Your task to perform on an android device: allow notifications from all sites in the chrome app Image 0: 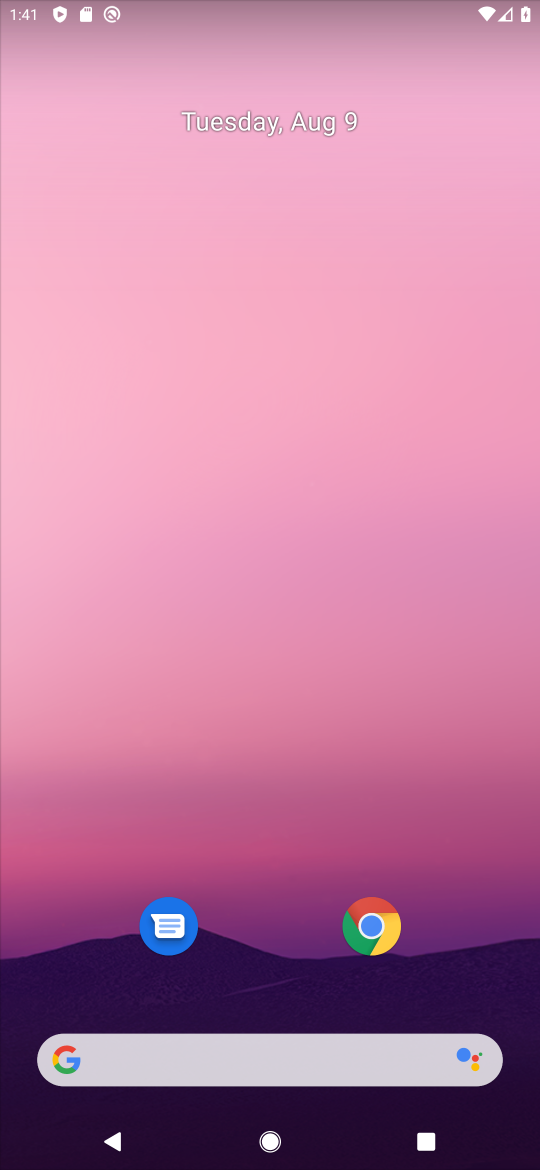
Step 0: drag from (261, 928) to (450, 309)
Your task to perform on an android device: allow notifications from all sites in the chrome app Image 1: 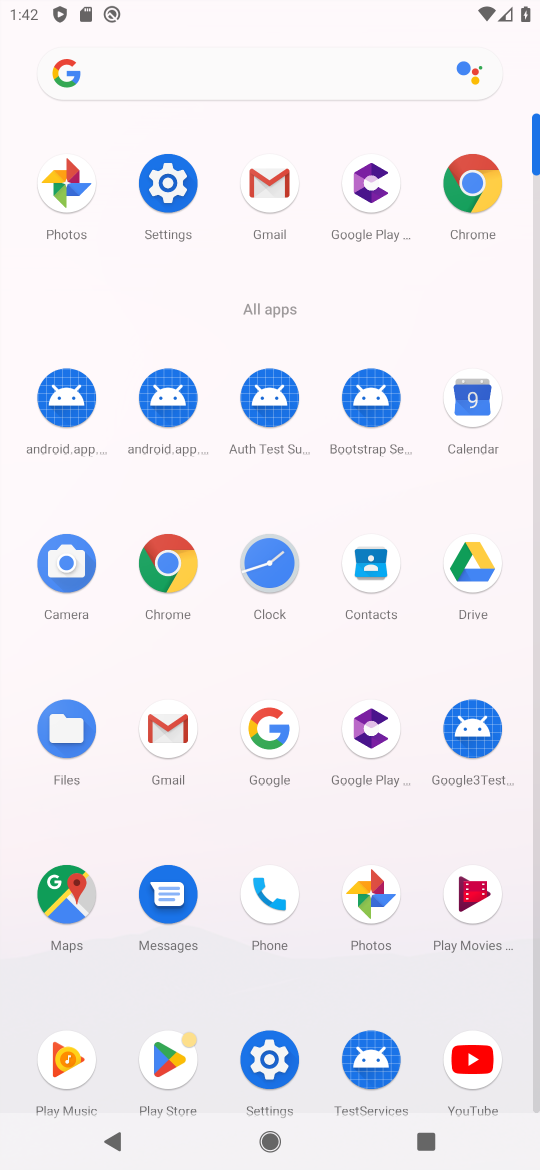
Step 1: click (480, 202)
Your task to perform on an android device: allow notifications from all sites in the chrome app Image 2: 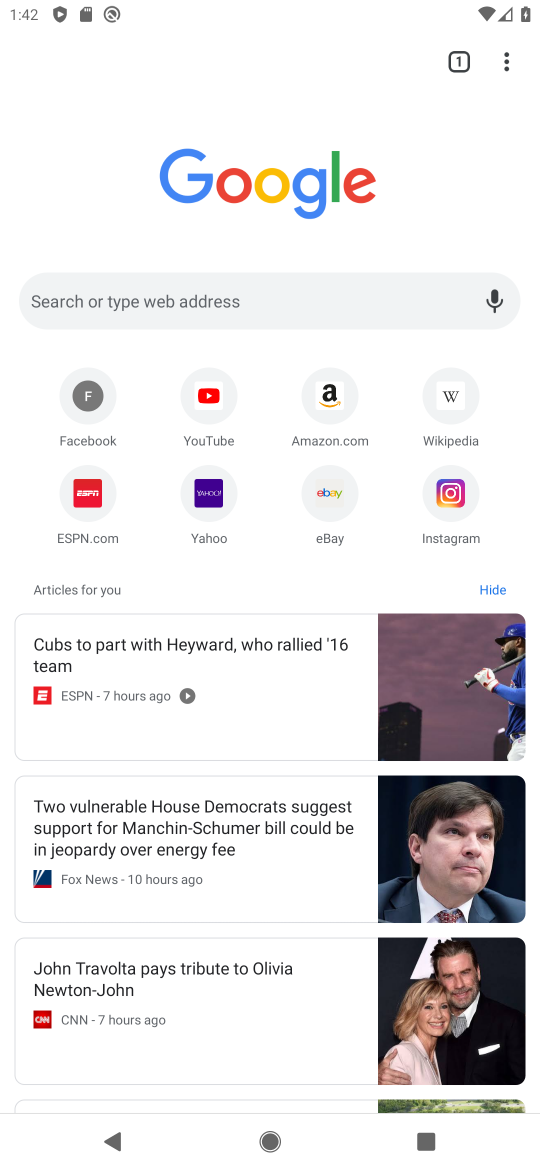
Step 2: click (396, 301)
Your task to perform on an android device: allow notifications from all sites in the chrome app Image 3: 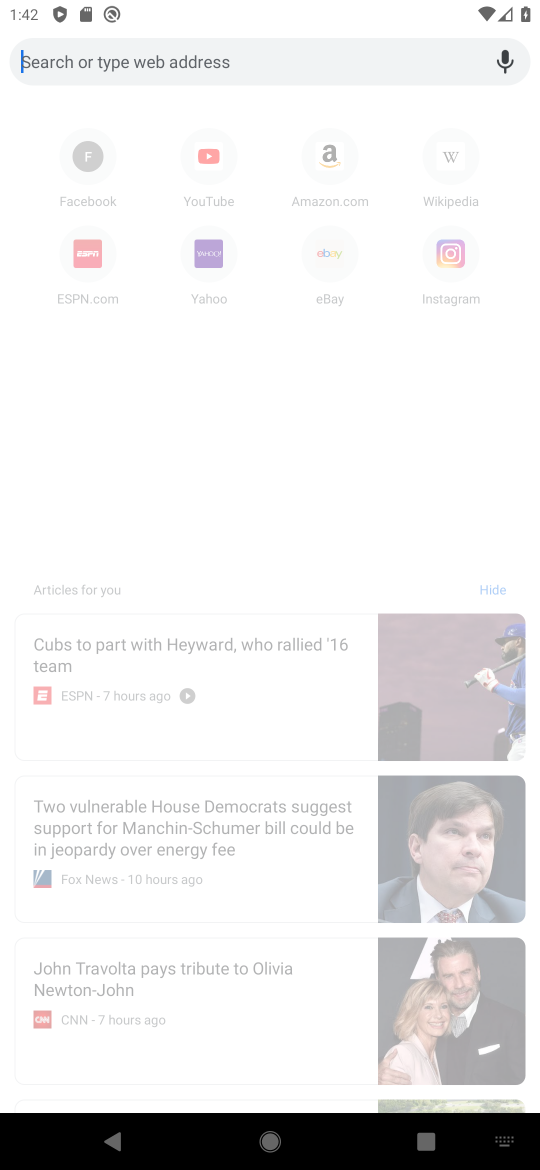
Step 3: press home button
Your task to perform on an android device: allow notifications from all sites in the chrome app Image 4: 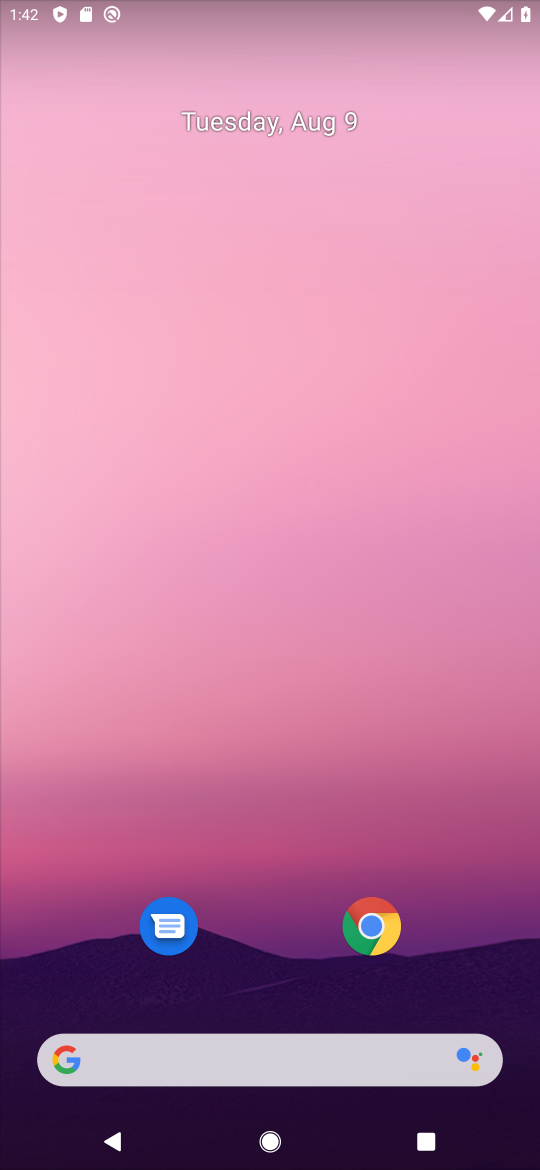
Step 4: drag from (241, 995) to (489, 69)
Your task to perform on an android device: allow notifications from all sites in the chrome app Image 5: 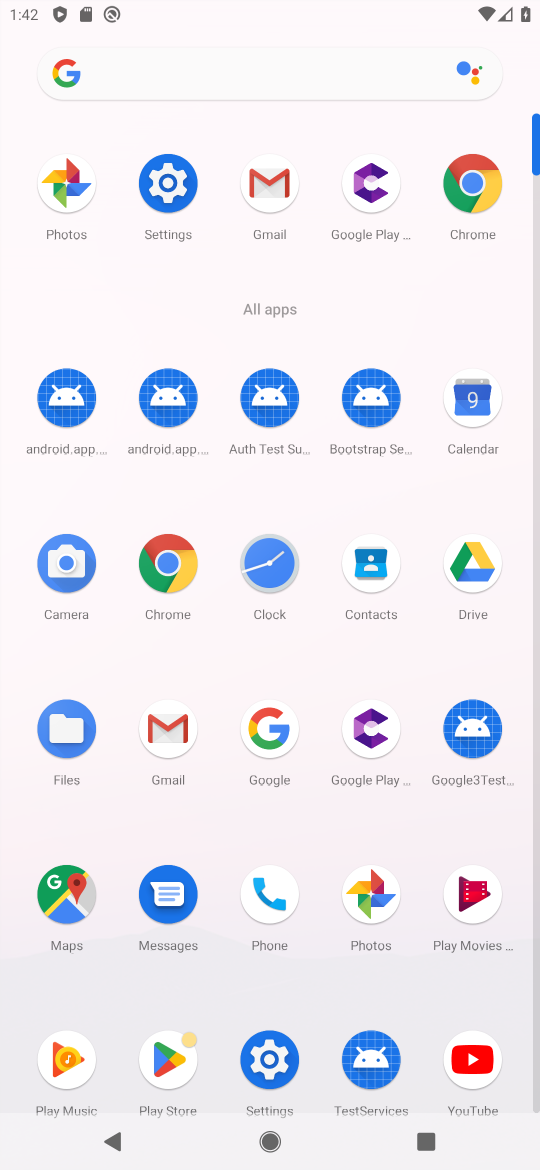
Step 5: click (483, 202)
Your task to perform on an android device: allow notifications from all sites in the chrome app Image 6: 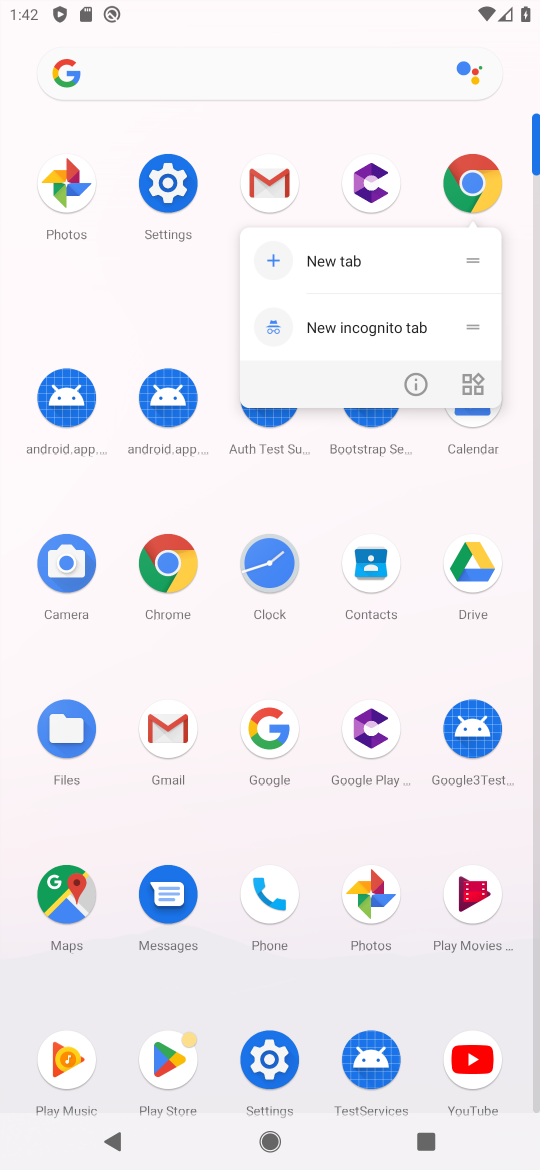
Step 6: click (400, 373)
Your task to perform on an android device: allow notifications from all sites in the chrome app Image 7: 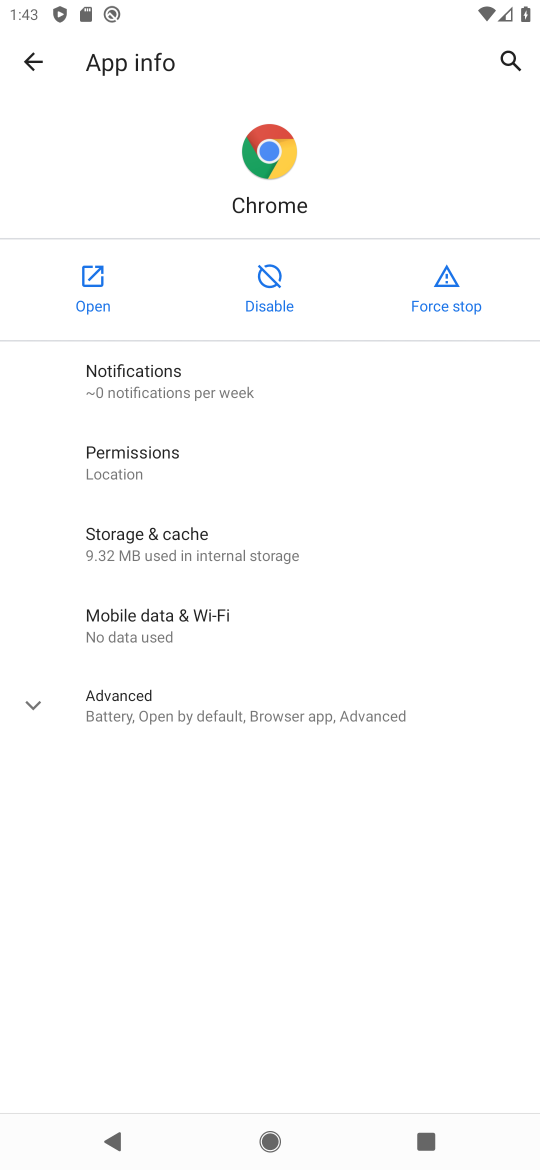
Step 7: click (74, 394)
Your task to perform on an android device: allow notifications from all sites in the chrome app Image 8: 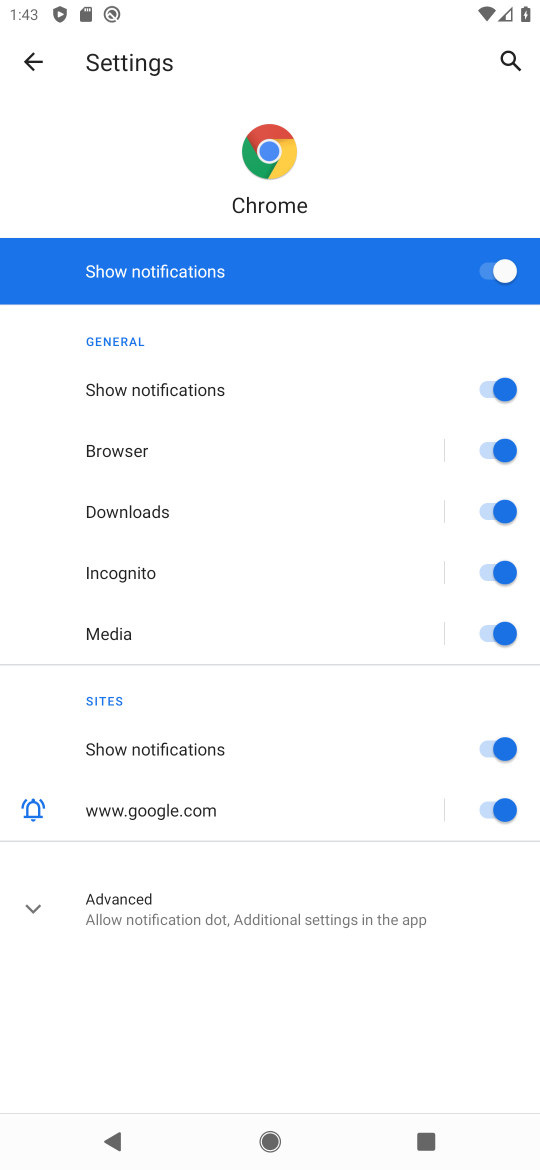
Step 8: task complete